Your task to perform on an android device: Go to Wikipedia Image 0: 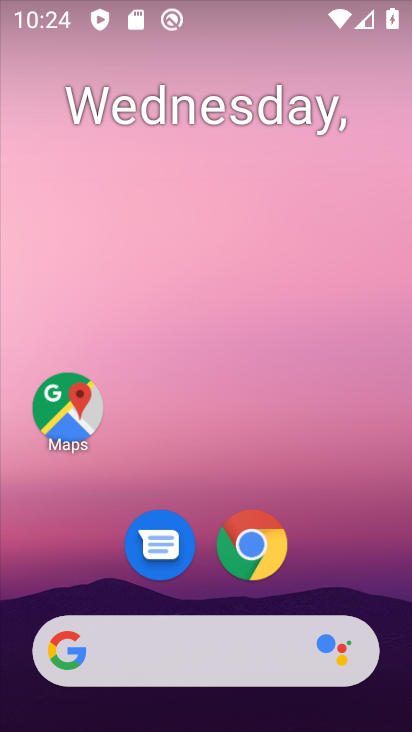
Step 0: drag from (250, 713) to (214, 13)
Your task to perform on an android device: Go to Wikipedia Image 1: 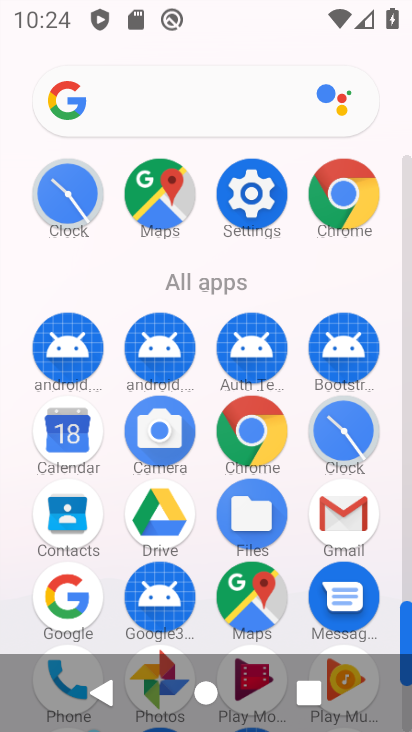
Step 1: click (259, 111)
Your task to perform on an android device: Go to Wikipedia Image 2: 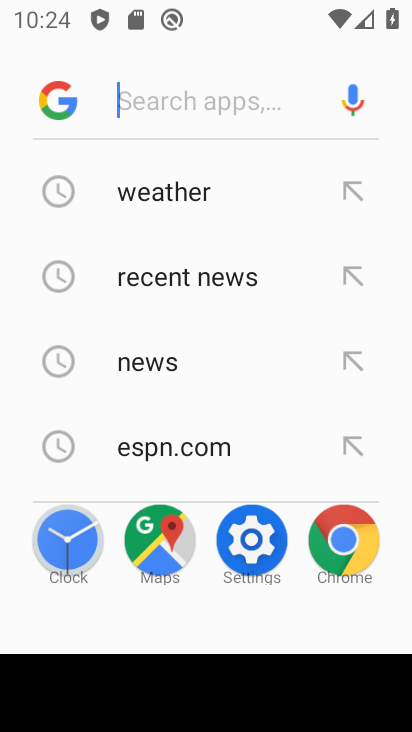
Step 2: type "wikipedia"
Your task to perform on an android device: Go to Wikipedia Image 3: 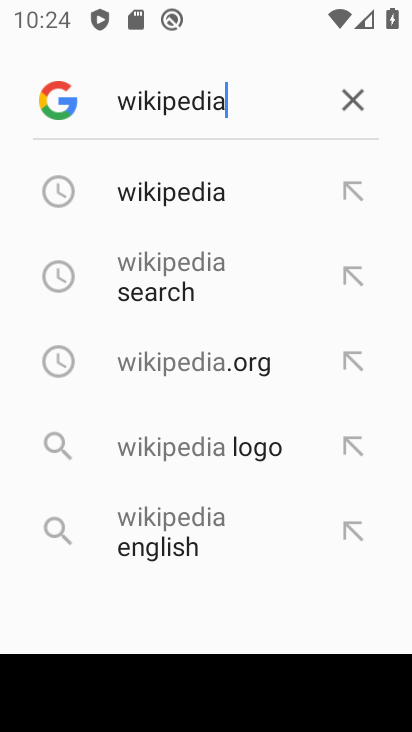
Step 3: click (184, 193)
Your task to perform on an android device: Go to Wikipedia Image 4: 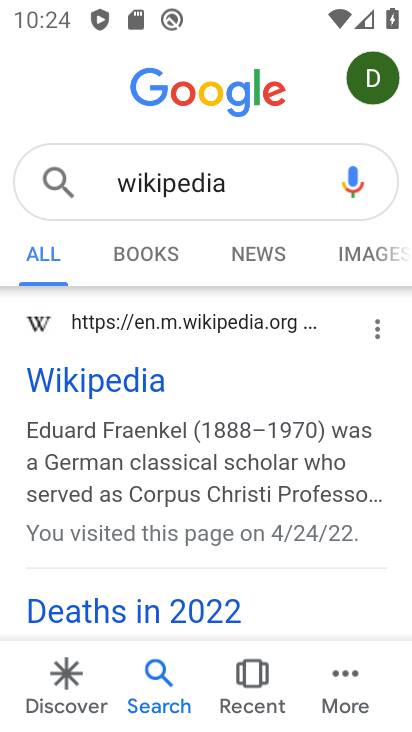
Step 4: click (193, 314)
Your task to perform on an android device: Go to Wikipedia Image 5: 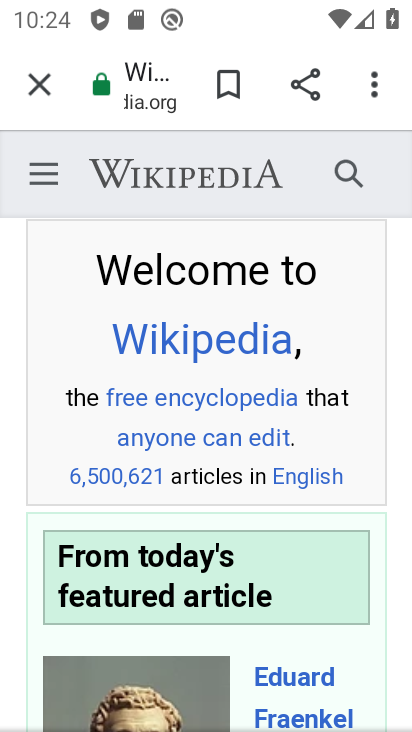
Step 5: task complete